Your task to perform on an android device: turn vacation reply on in the gmail app Image 0: 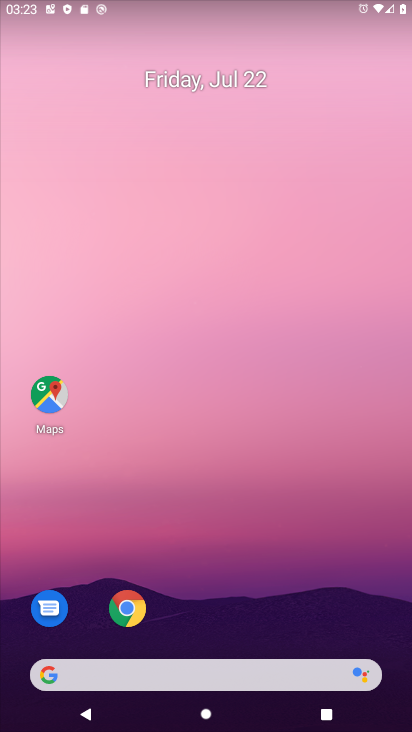
Step 0: drag from (219, 618) to (308, 204)
Your task to perform on an android device: turn vacation reply on in the gmail app Image 1: 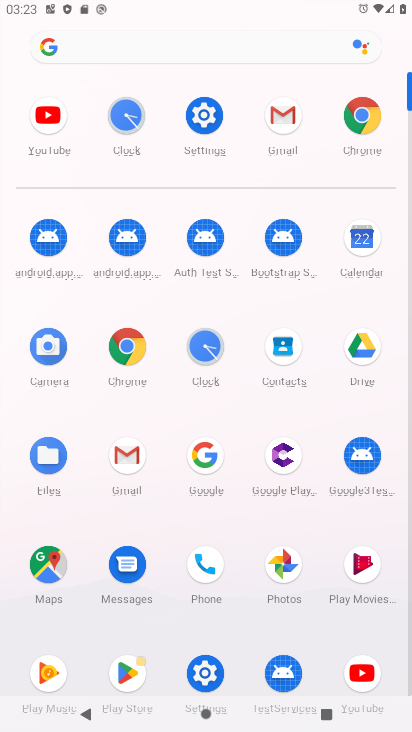
Step 1: click (278, 118)
Your task to perform on an android device: turn vacation reply on in the gmail app Image 2: 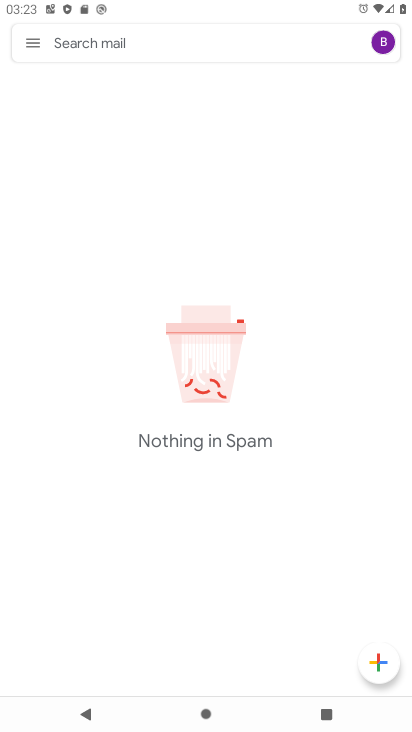
Step 2: click (40, 52)
Your task to perform on an android device: turn vacation reply on in the gmail app Image 3: 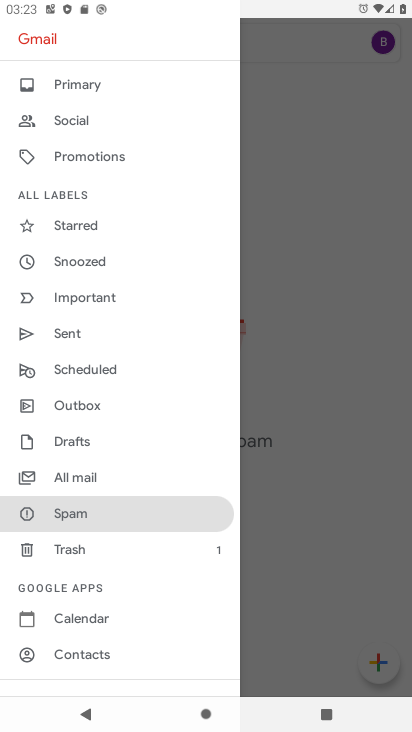
Step 3: drag from (114, 620) to (142, 435)
Your task to perform on an android device: turn vacation reply on in the gmail app Image 4: 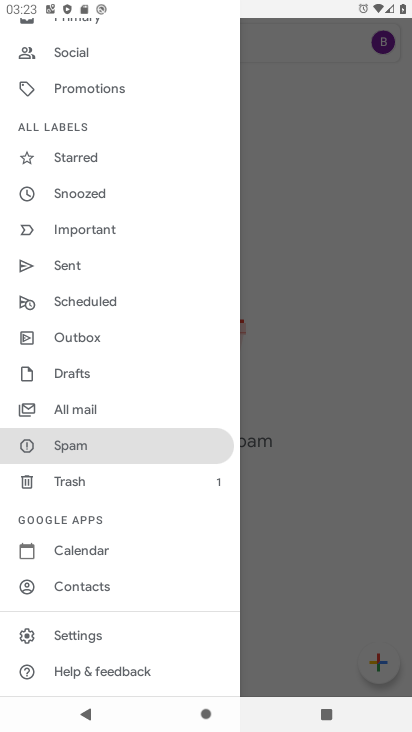
Step 4: click (117, 634)
Your task to perform on an android device: turn vacation reply on in the gmail app Image 5: 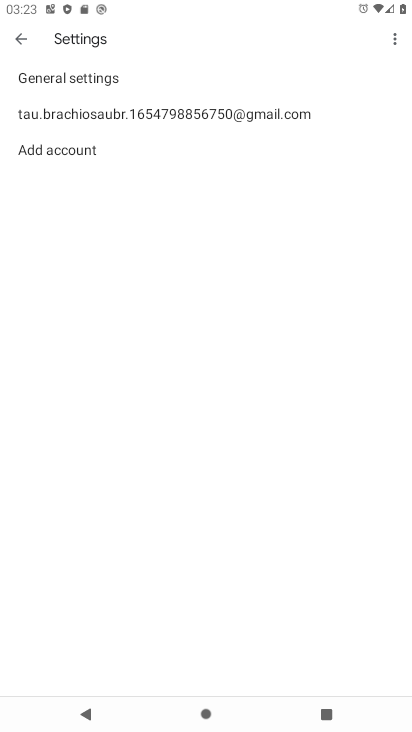
Step 5: click (133, 116)
Your task to perform on an android device: turn vacation reply on in the gmail app Image 6: 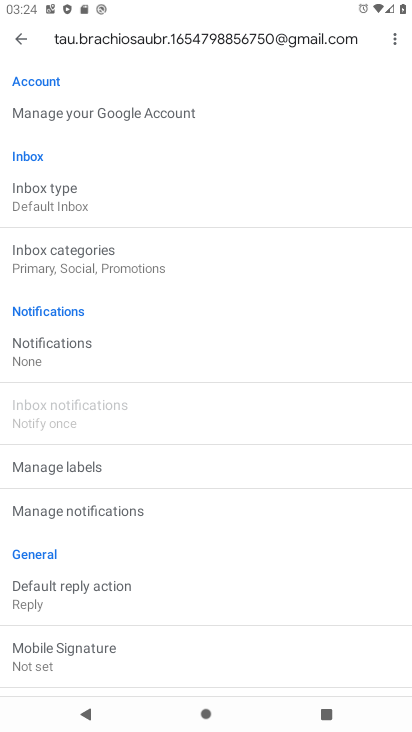
Step 6: drag from (265, 637) to (319, 341)
Your task to perform on an android device: turn vacation reply on in the gmail app Image 7: 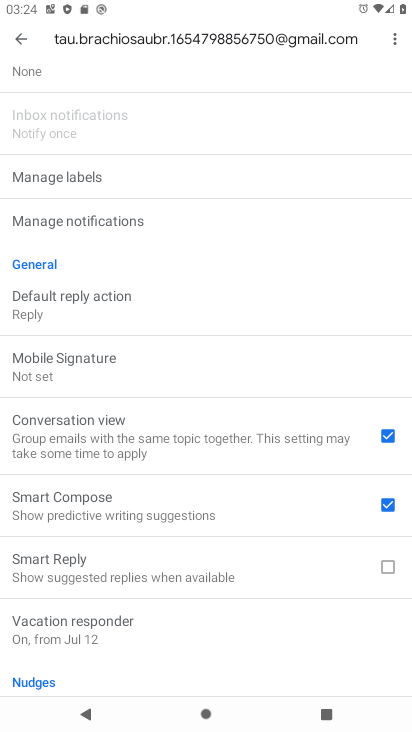
Step 7: click (151, 622)
Your task to perform on an android device: turn vacation reply on in the gmail app Image 8: 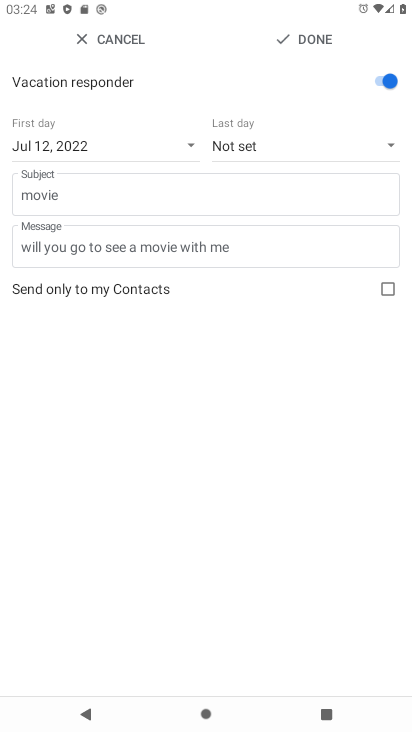
Step 8: click (299, 40)
Your task to perform on an android device: turn vacation reply on in the gmail app Image 9: 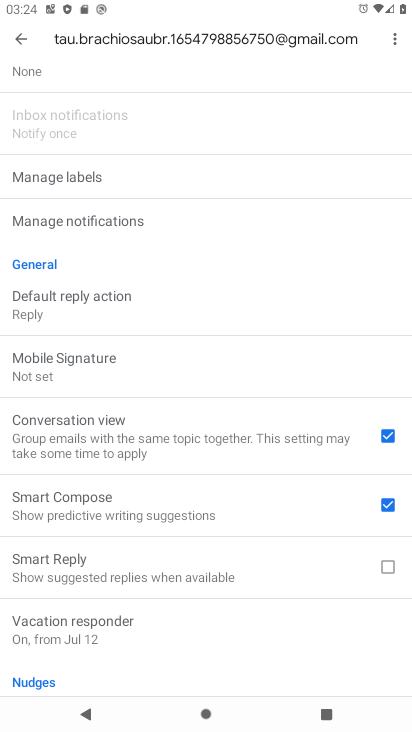
Step 9: task complete